Your task to perform on an android device: Go to display settings Image 0: 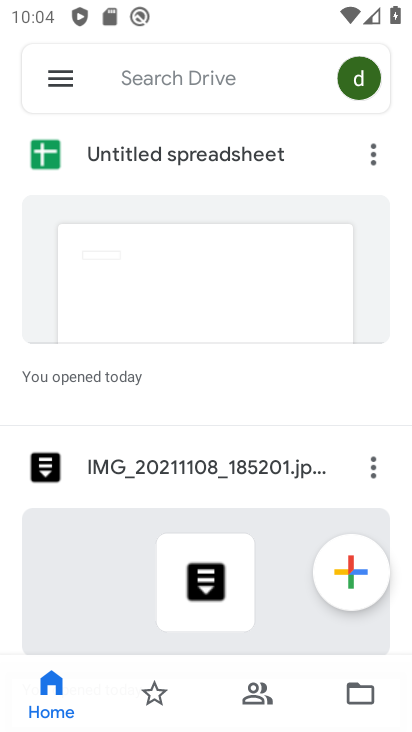
Step 0: press home button
Your task to perform on an android device: Go to display settings Image 1: 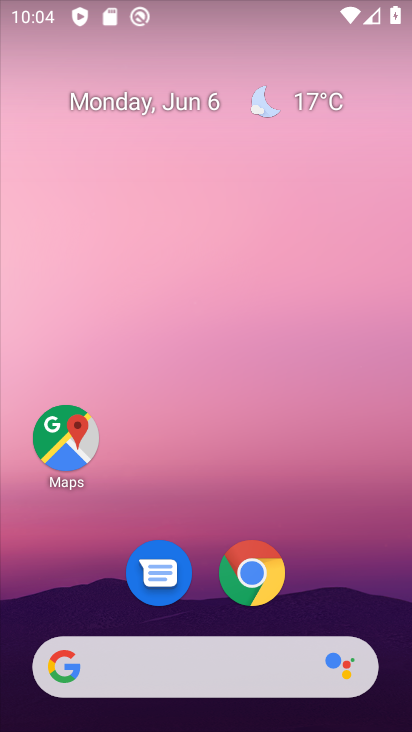
Step 1: drag from (374, 625) to (337, 239)
Your task to perform on an android device: Go to display settings Image 2: 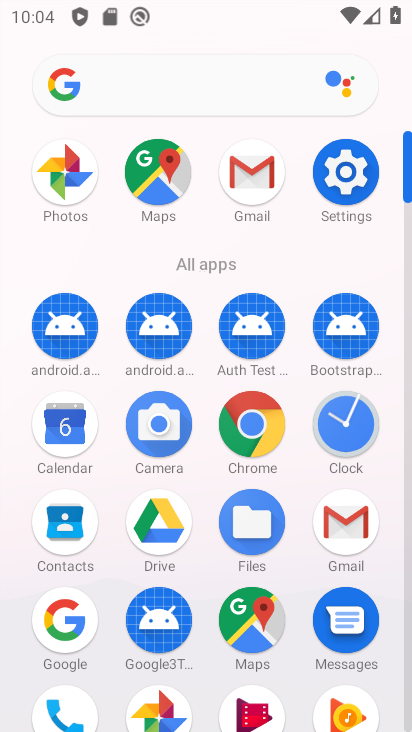
Step 2: click (352, 193)
Your task to perform on an android device: Go to display settings Image 3: 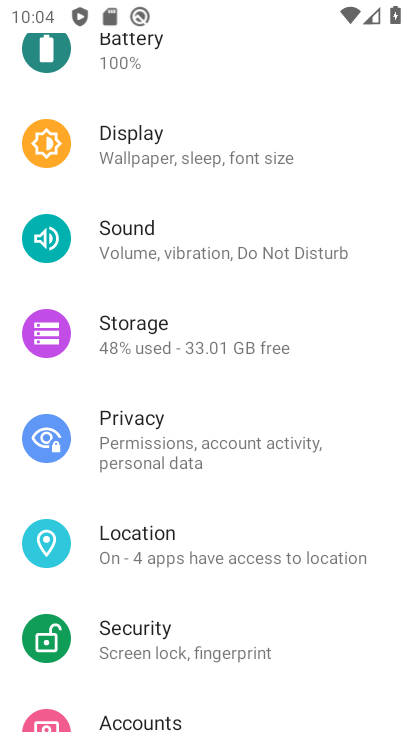
Step 3: click (282, 145)
Your task to perform on an android device: Go to display settings Image 4: 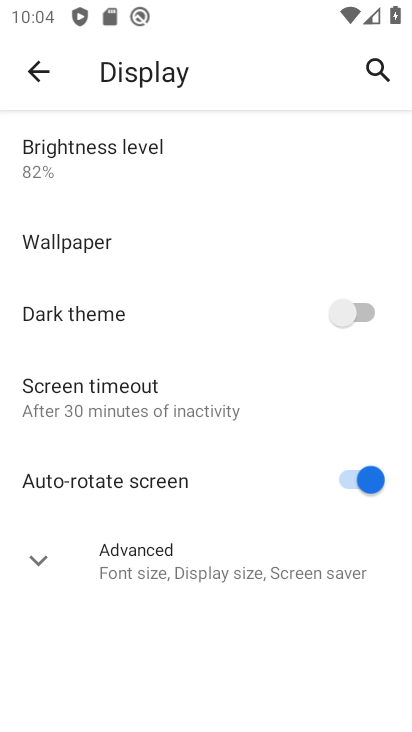
Step 4: task complete